Your task to perform on an android device: create a new album in the google photos Image 0: 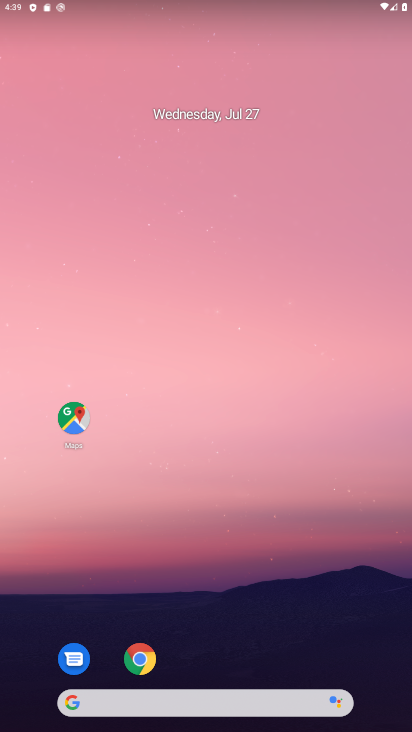
Step 0: drag from (178, 603) to (228, 114)
Your task to perform on an android device: create a new album in the google photos Image 1: 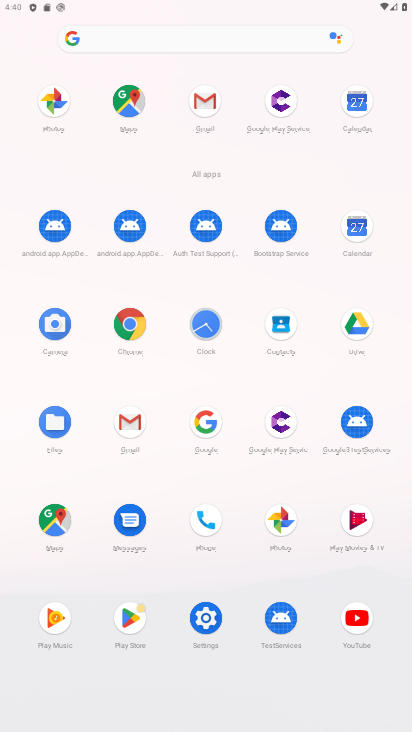
Step 1: click (289, 513)
Your task to perform on an android device: create a new album in the google photos Image 2: 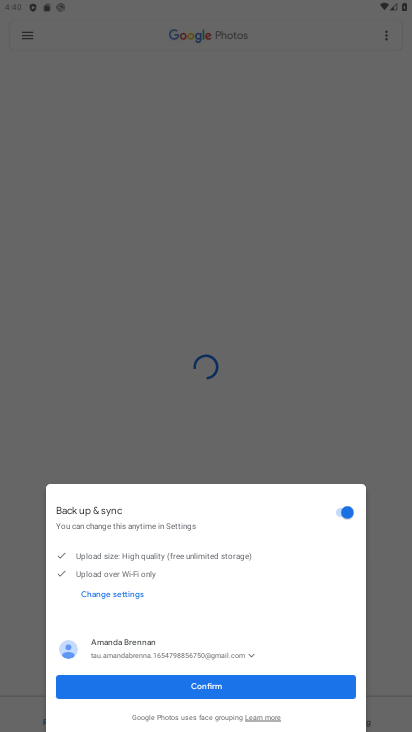
Step 2: click (173, 682)
Your task to perform on an android device: create a new album in the google photos Image 3: 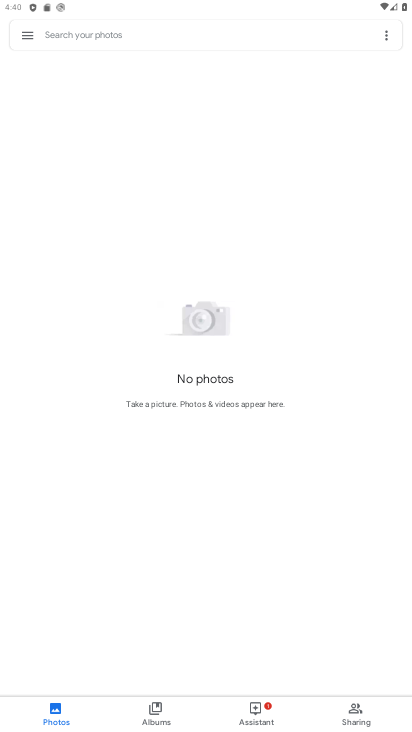
Step 3: task complete